Your task to perform on an android device: Open Yahoo.com Image 0: 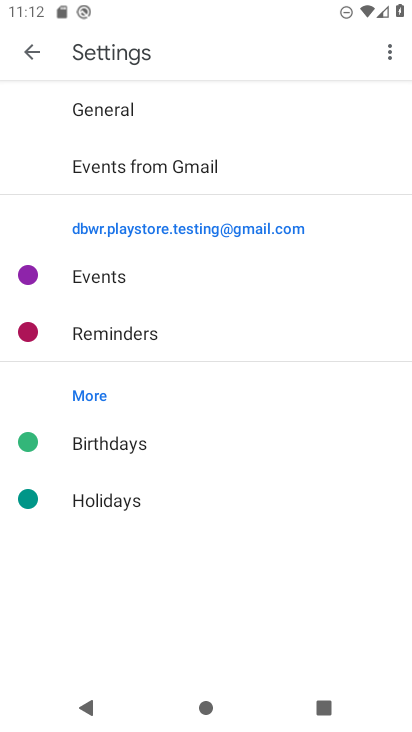
Step 0: press home button
Your task to perform on an android device: Open Yahoo.com Image 1: 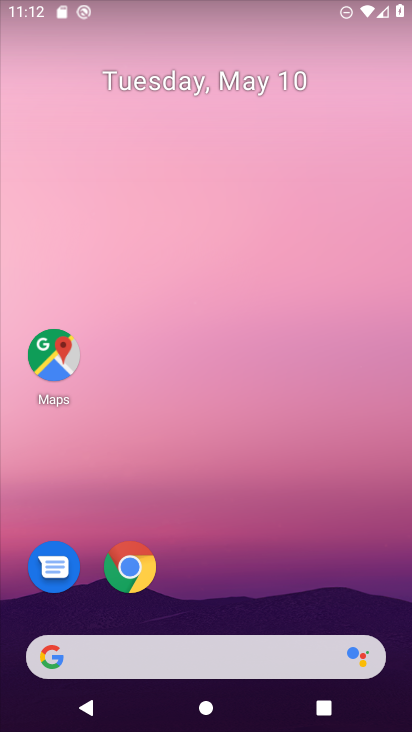
Step 1: click (143, 572)
Your task to perform on an android device: Open Yahoo.com Image 2: 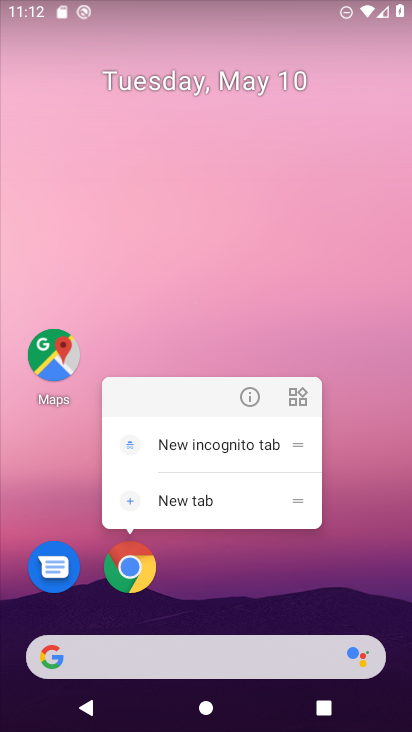
Step 2: click (126, 577)
Your task to perform on an android device: Open Yahoo.com Image 3: 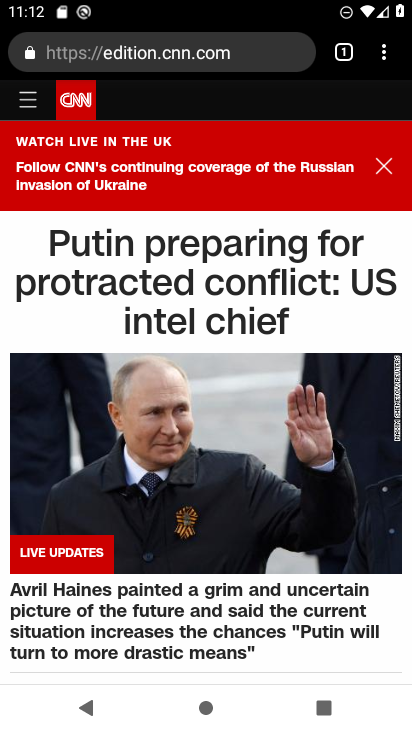
Step 3: click (191, 53)
Your task to perform on an android device: Open Yahoo.com Image 4: 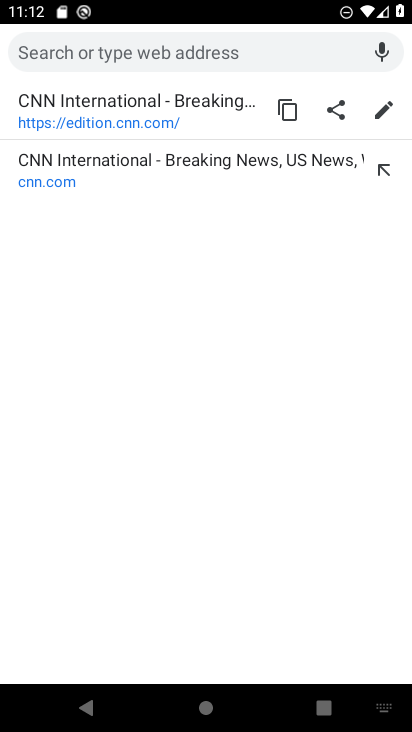
Step 4: type "yahoo.com"
Your task to perform on an android device: Open Yahoo.com Image 5: 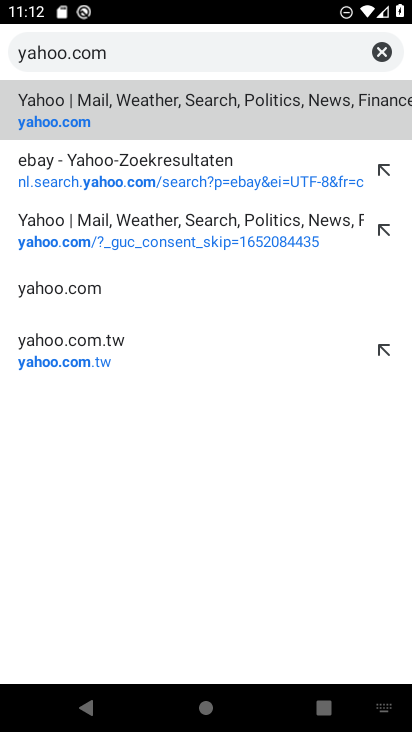
Step 5: click (39, 123)
Your task to perform on an android device: Open Yahoo.com Image 6: 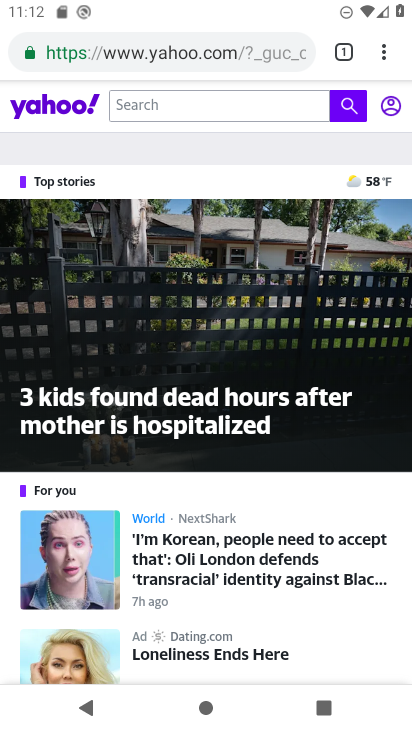
Step 6: task complete